Your task to perform on an android device: Open sound settings Image 0: 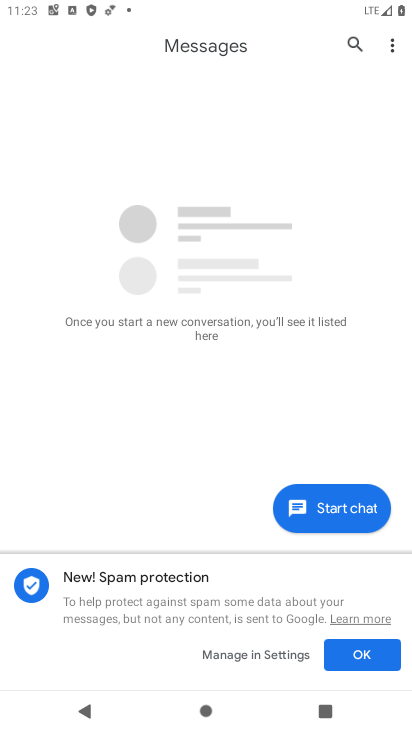
Step 0: press home button
Your task to perform on an android device: Open sound settings Image 1: 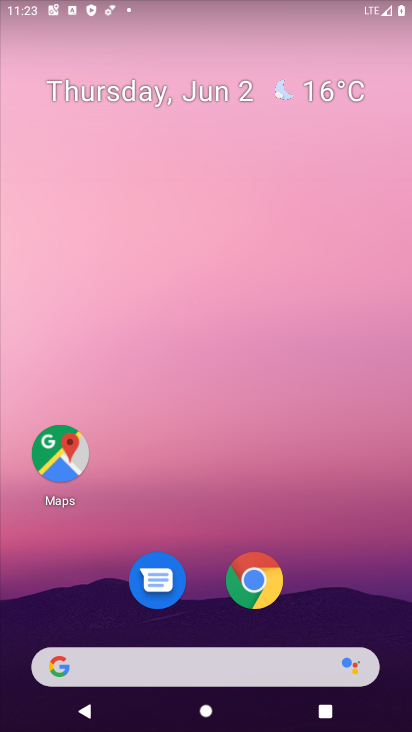
Step 1: drag from (251, 570) to (295, 289)
Your task to perform on an android device: Open sound settings Image 2: 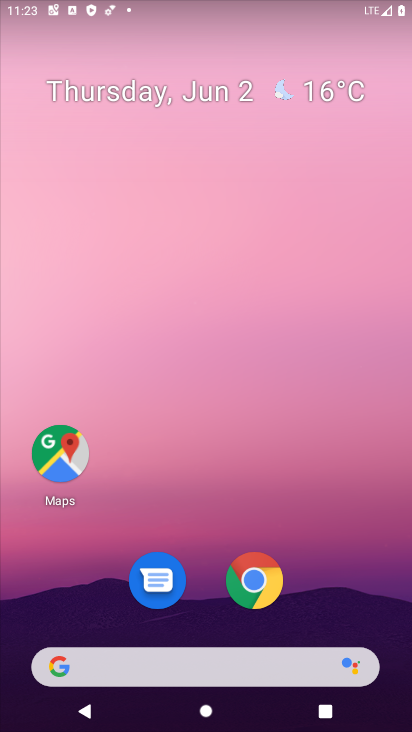
Step 2: drag from (244, 563) to (304, 219)
Your task to perform on an android device: Open sound settings Image 3: 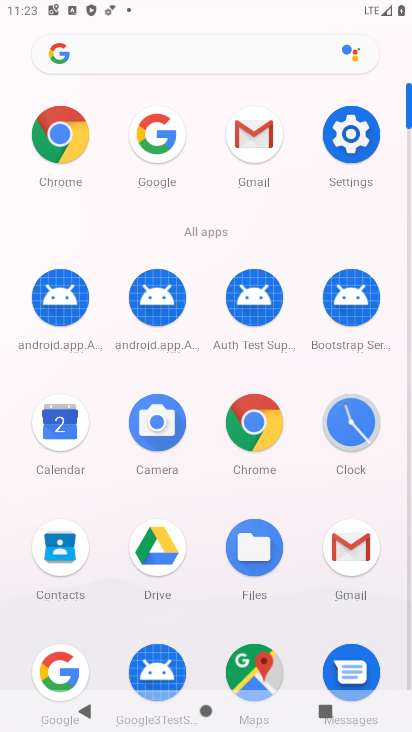
Step 3: click (358, 167)
Your task to perform on an android device: Open sound settings Image 4: 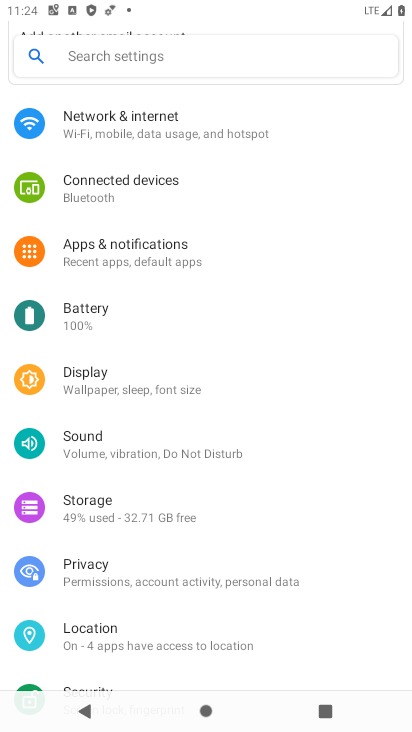
Step 4: click (133, 455)
Your task to perform on an android device: Open sound settings Image 5: 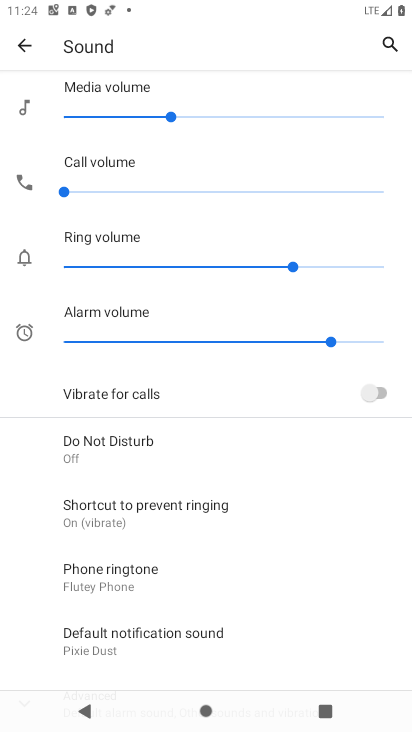
Step 5: task complete